Your task to perform on an android device: move a message to another label in the gmail app Image 0: 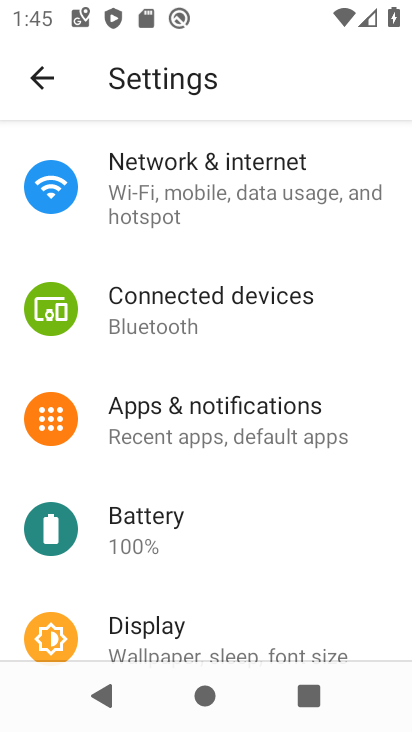
Step 0: press back button
Your task to perform on an android device: move a message to another label in the gmail app Image 1: 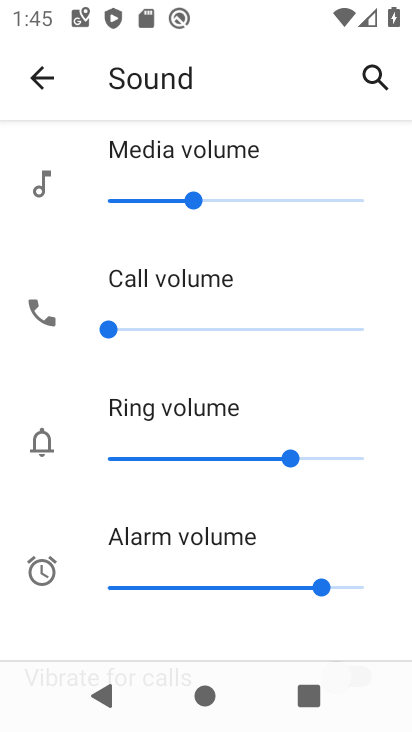
Step 1: press back button
Your task to perform on an android device: move a message to another label in the gmail app Image 2: 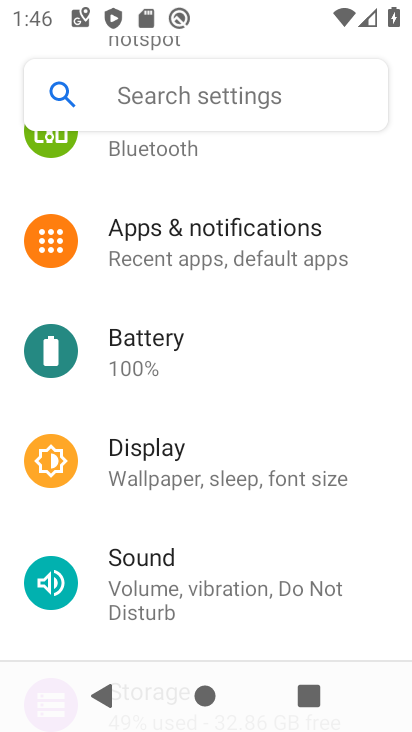
Step 2: press back button
Your task to perform on an android device: move a message to another label in the gmail app Image 3: 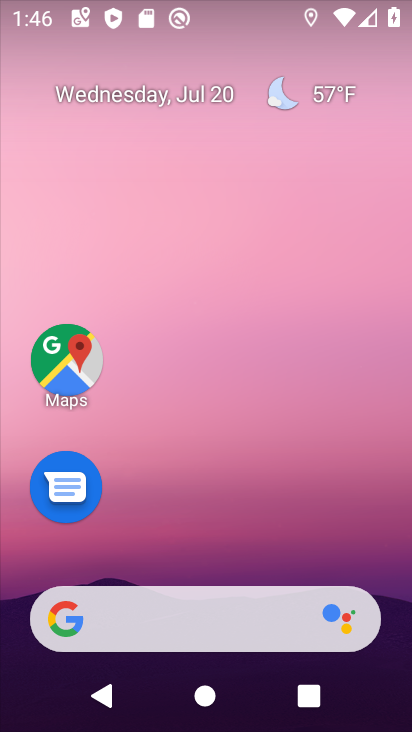
Step 3: drag from (204, 548) to (216, 67)
Your task to perform on an android device: move a message to another label in the gmail app Image 4: 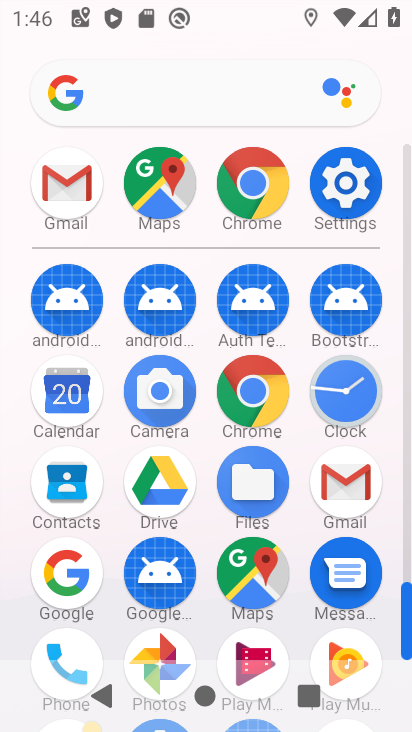
Step 4: click (70, 168)
Your task to perform on an android device: move a message to another label in the gmail app Image 5: 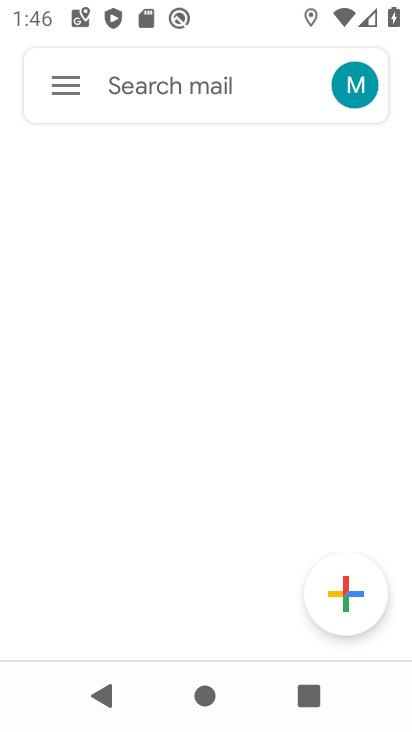
Step 5: click (191, 527)
Your task to perform on an android device: move a message to another label in the gmail app Image 6: 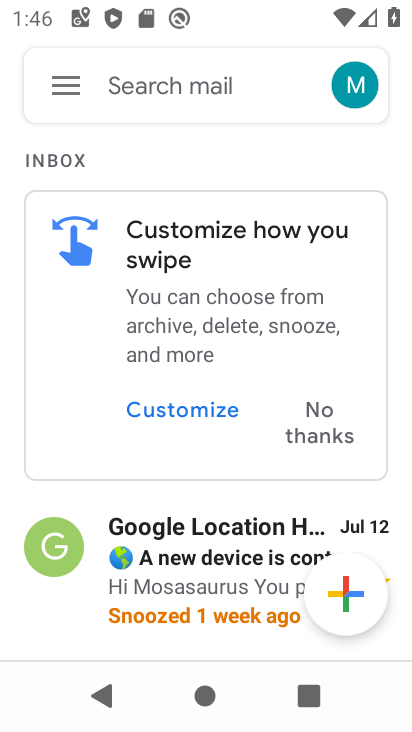
Step 6: click (184, 539)
Your task to perform on an android device: move a message to another label in the gmail app Image 7: 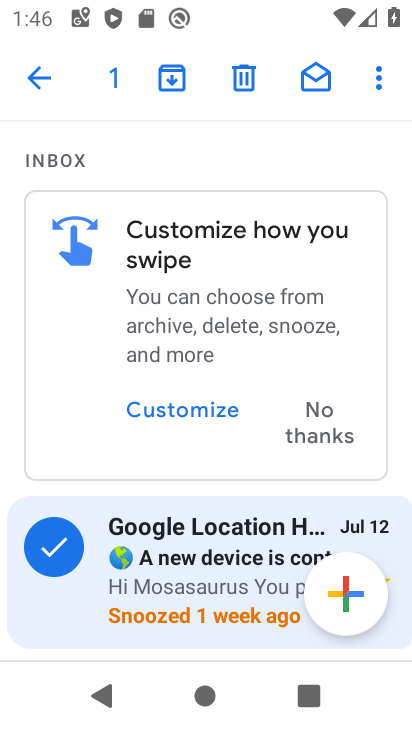
Step 7: click (376, 66)
Your task to perform on an android device: move a message to another label in the gmail app Image 8: 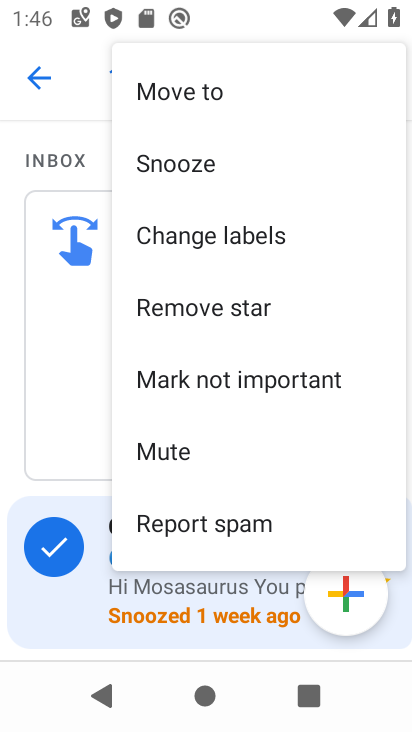
Step 8: click (190, 84)
Your task to perform on an android device: move a message to another label in the gmail app Image 9: 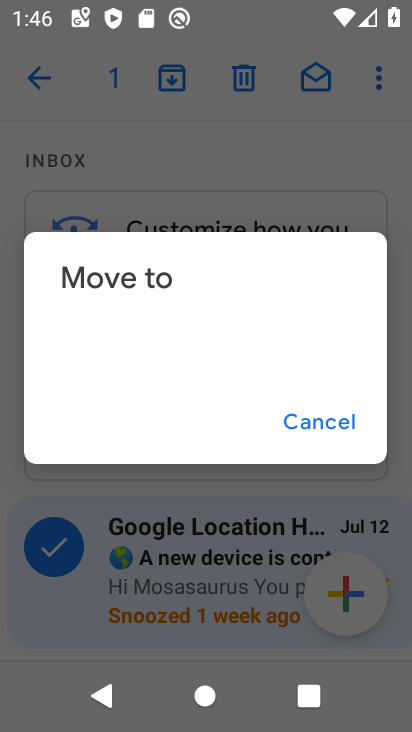
Step 9: click (317, 418)
Your task to perform on an android device: move a message to another label in the gmail app Image 10: 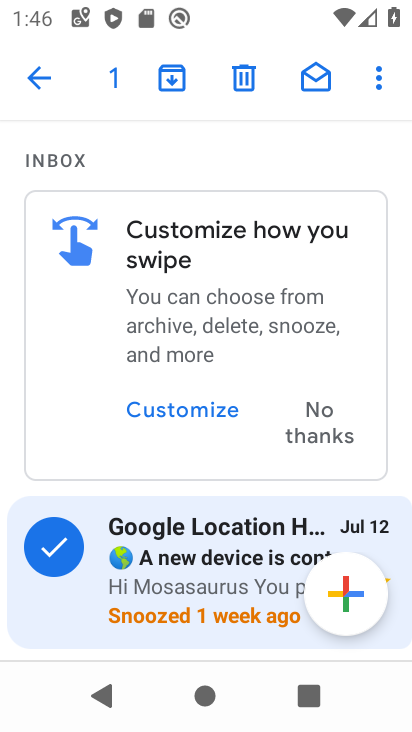
Step 10: task complete